Your task to perform on an android device: Open accessibility settings Image 0: 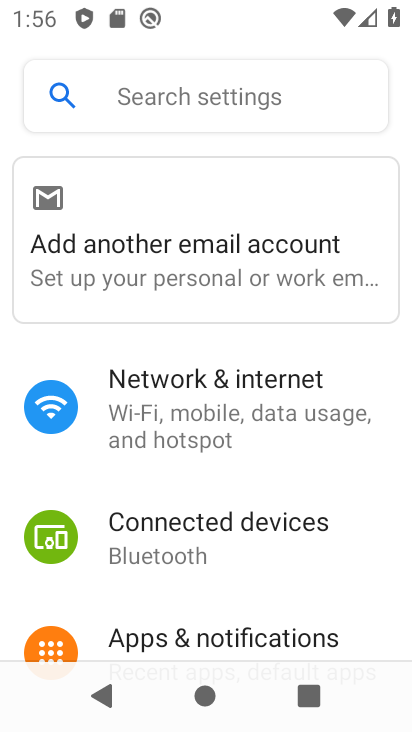
Step 0: drag from (258, 562) to (309, 75)
Your task to perform on an android device: Open accessibility settings Image 1: 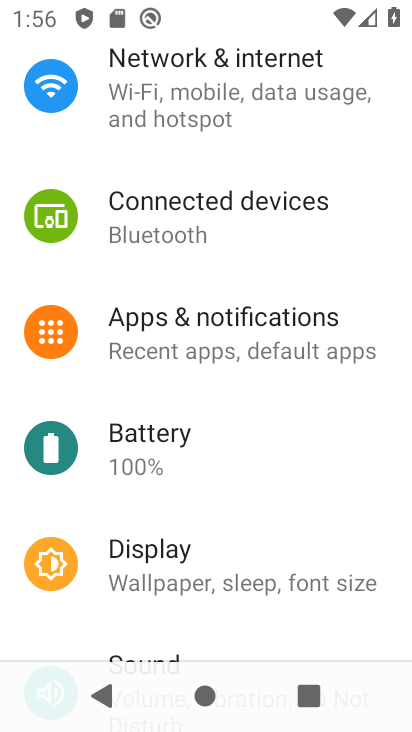
Step 1: drag from (190, 432) to (245, 134)
Your task to perform on an android device: Open accessibility settings Image 2: 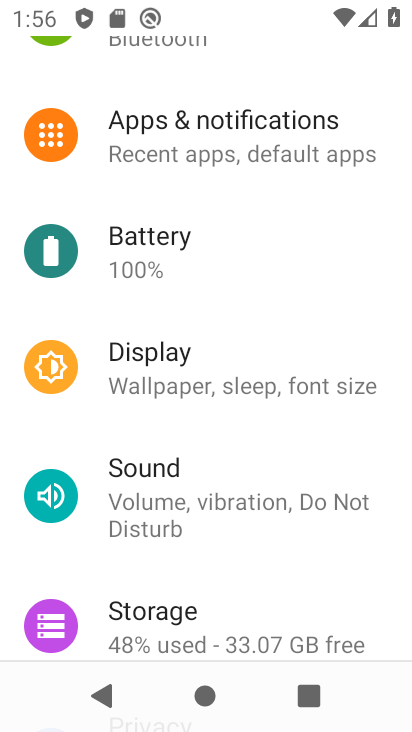
Step 2: drag from (168, 502) to (219, 198)
Your task to perform on an android device: Open accessibility settings Image 3: 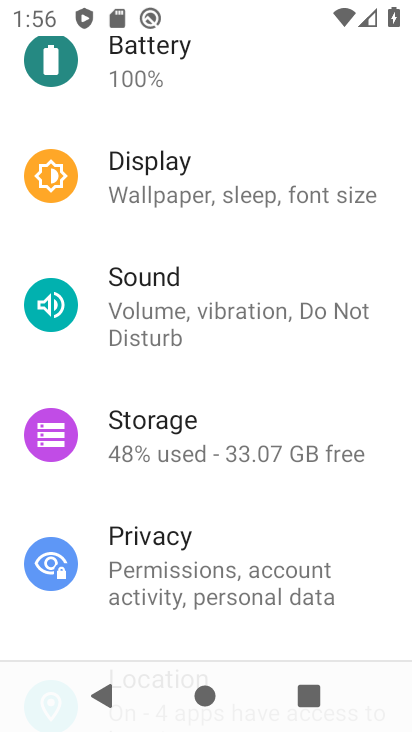
Step 3: drag from (159, 569) to (260, 110)
Your task to perform on an android device: Open accessibility settings Image 4: 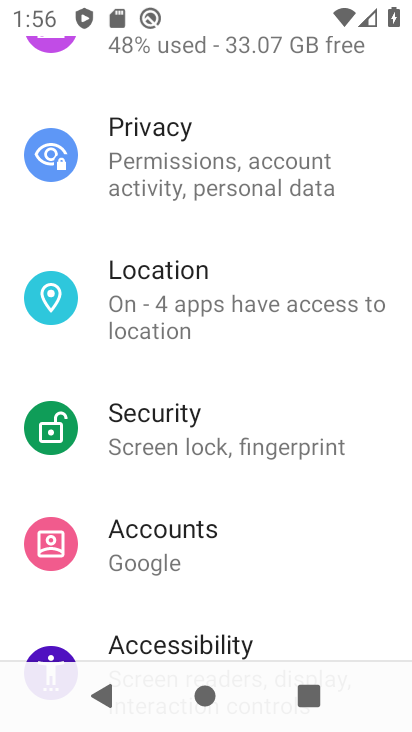
Step 4: drag from (201, 553) to (277, 170)
Your task to perform on an android device: Open accessibility settings Image 5: 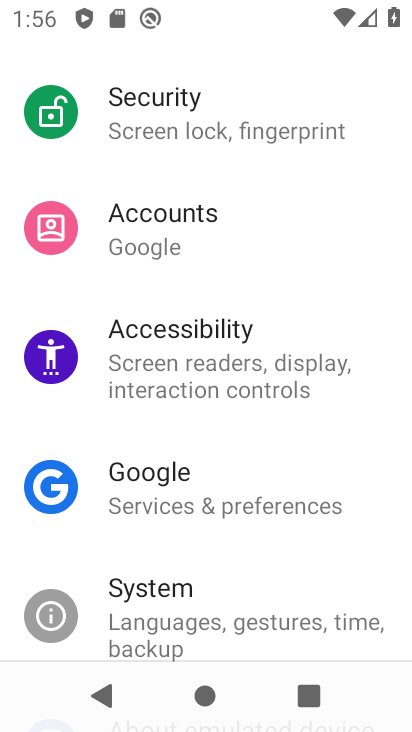
Step 5: click (196, 374)
Your task to perform on an android device: Open accessibility settings Image 6: 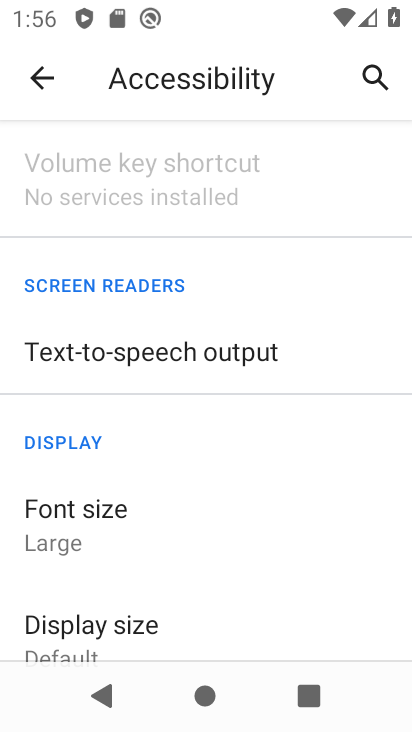
Step 6: task complete